Your task to perform on an android device: Open Google Image 0: 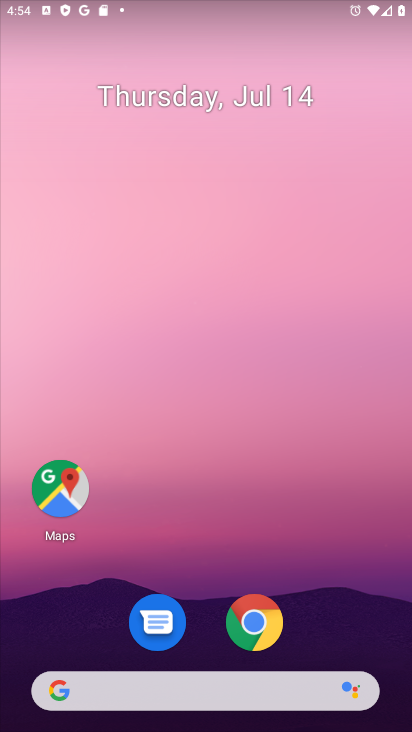
Step 0: click (186, 689)
Your task to perform on an android device: Open Google Image 1: 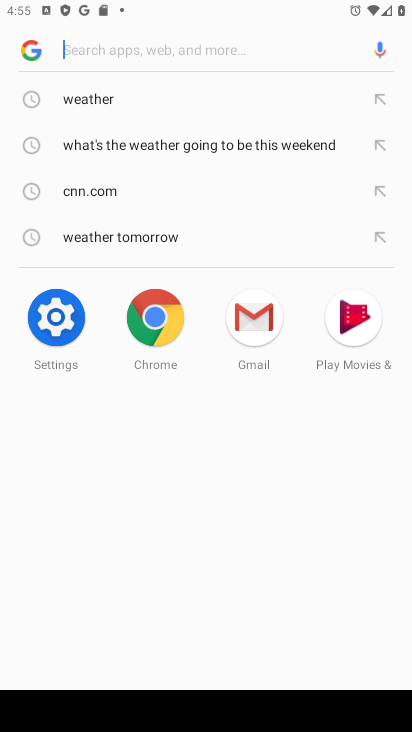
Step 1: task complete